Your task to perform on an android device: Show me recent news Image 0: 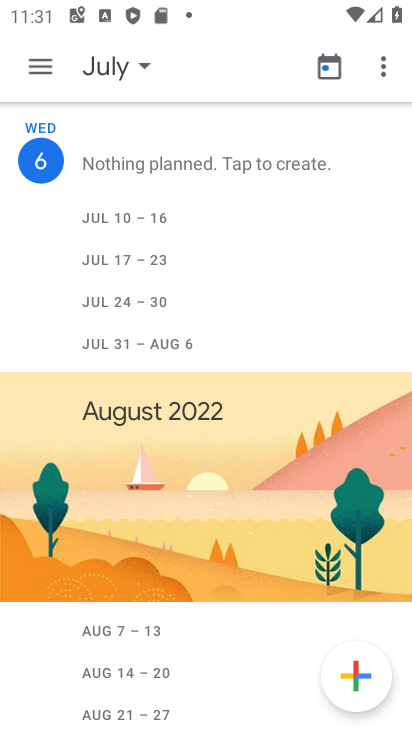
Step 0: press home button
Your task to perform on an android device: Show me recent news Image 1: 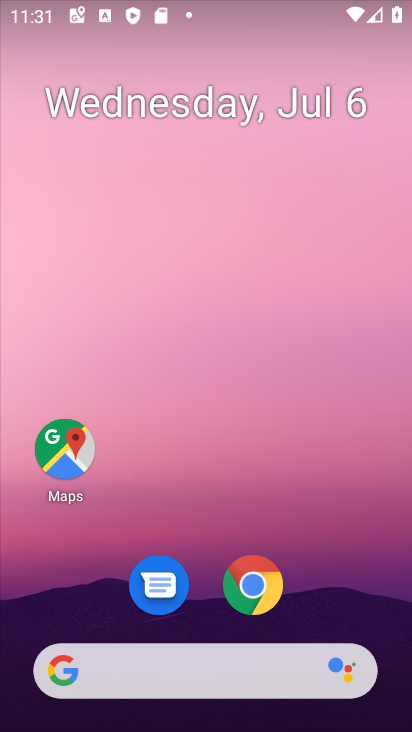
Step 1: click (155, 670)
Your task to perform on an android device: Show me recent news Image 2: 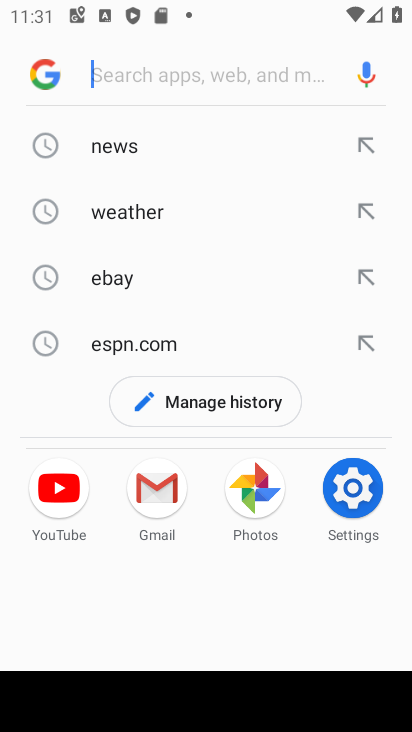
Step 2: click (110, 146)
Your task to perform on an android device: Show me recent news Image 3: 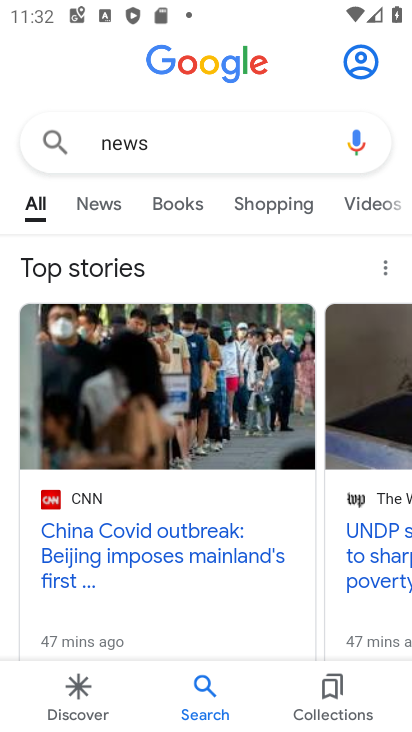
Step 3: click (100, 217)
Your task to perform on an android device: Show me recent news Image 4: 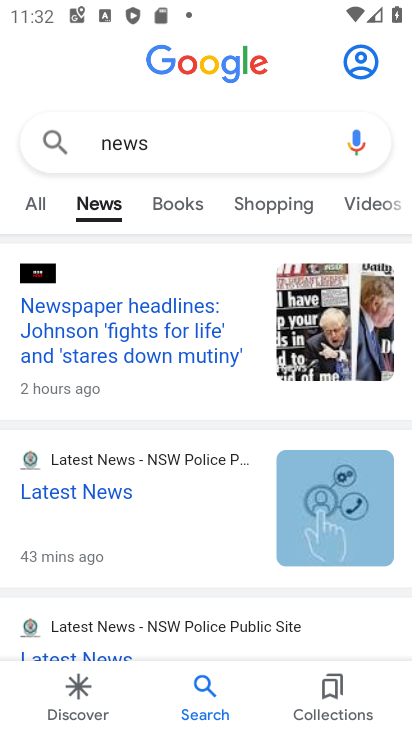
Step 4: task complete